Your task to perform on an android device: Open maps Image 0: 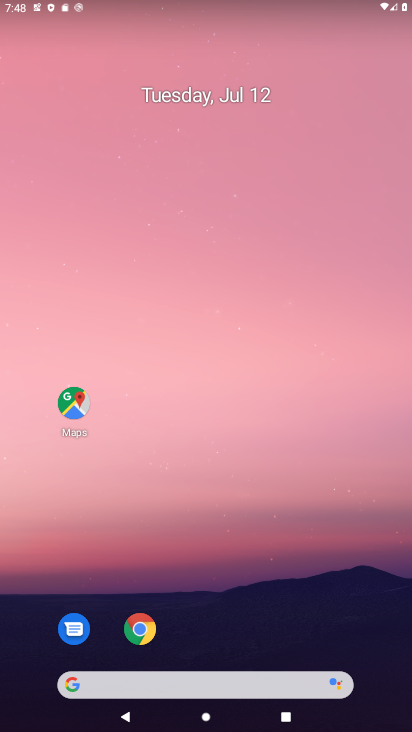
Step 0: drag from (260, 675) to (161, 100)
Your task to perform on an android device: Open maps Image 1: 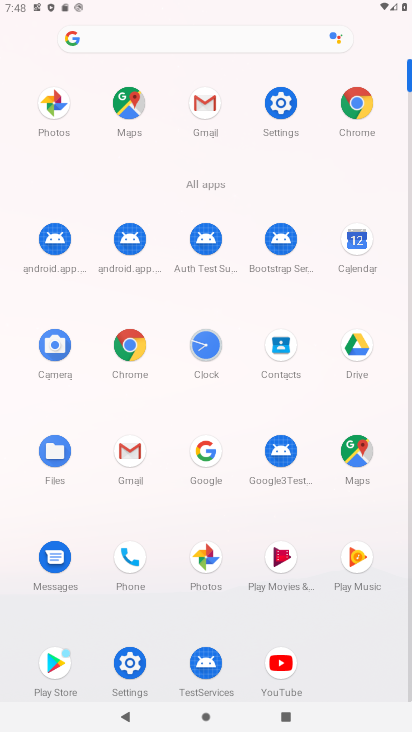
Step 1: click (353, 448)
Your task to perform on an android device: Open maps Image 2: 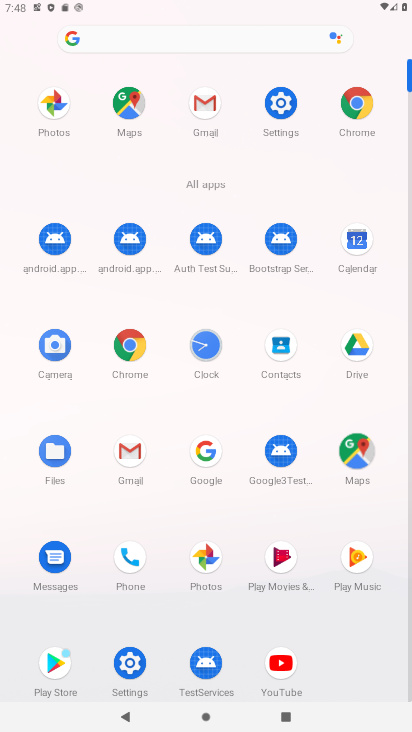
Step 2: click (353, 448)
Your task to perform on an android device: Open maps Image 3: 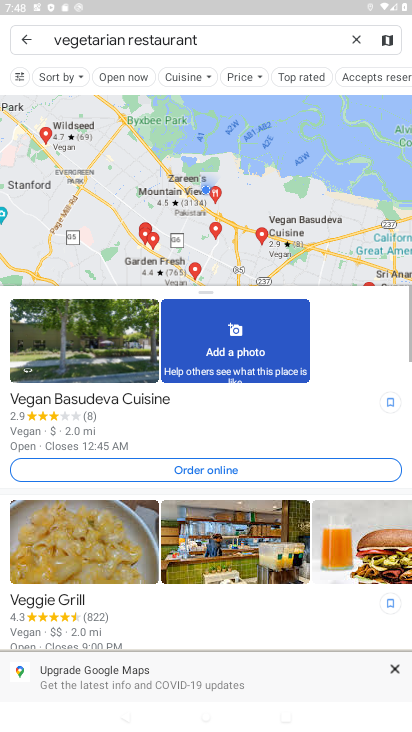
Step 3: click (20, 38)
Your task to perform on an android device: Open maps Image 4: 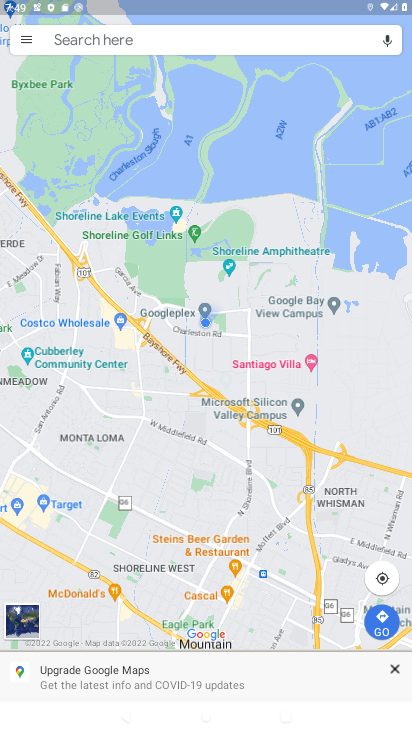
Step 4: task complete